Your task to perform on an android device: clear all cookies in the chrome app Image 0: 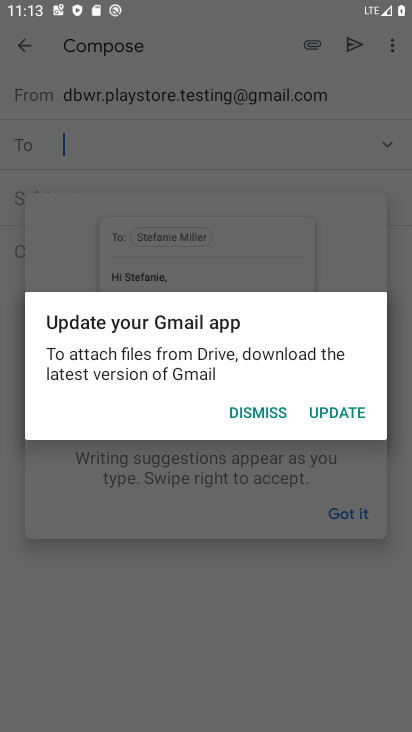
Step 0: press home button
Your task to perform on an android device: clear all cookies in the chrome app Image 1: 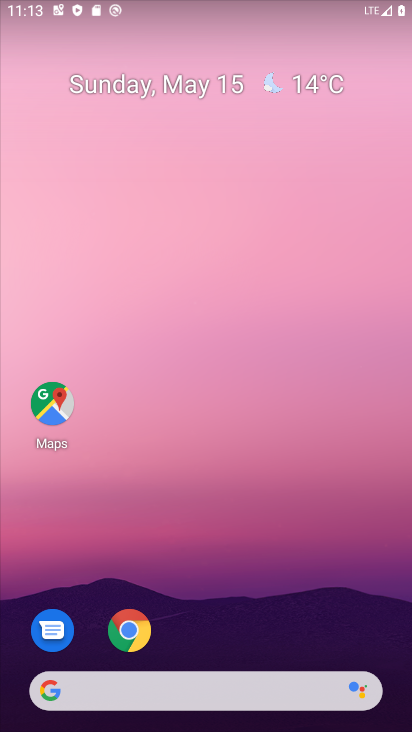
Step 1: click (139, 631)
Your task to perform on an android device: clear all cookies in the chrome app Image 2: 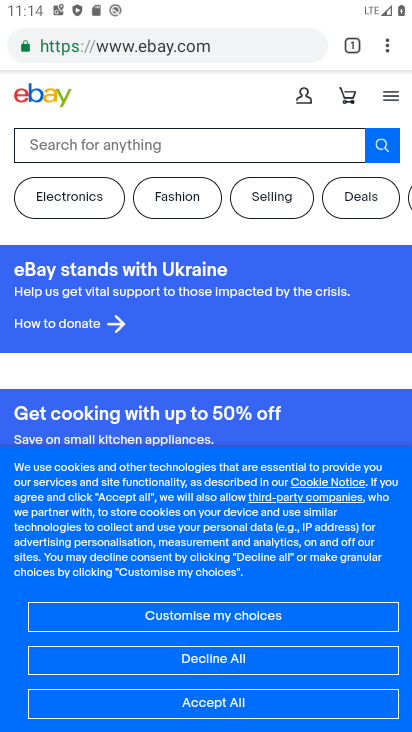
Step 2: click (385, 43)
Your task to perform on an android device: clear all cookies in the chrome app Image 3: 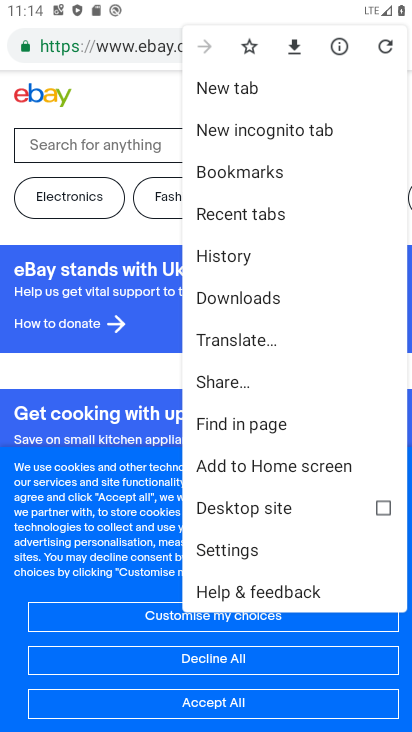
Step 3: click (244, 555)
Your task to perform on an android device: clear all cookies in the chrome app Image 4: 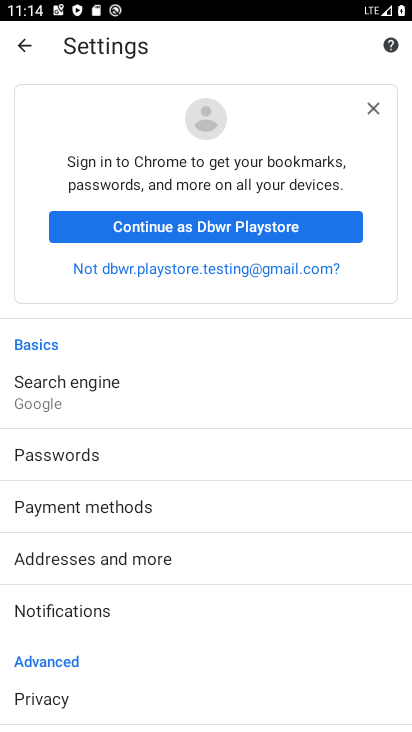
Step 4: drag from (83, 687) to (258, 302)
Your task to perform on an android device: clear all cookies in the chrome app Image 5: 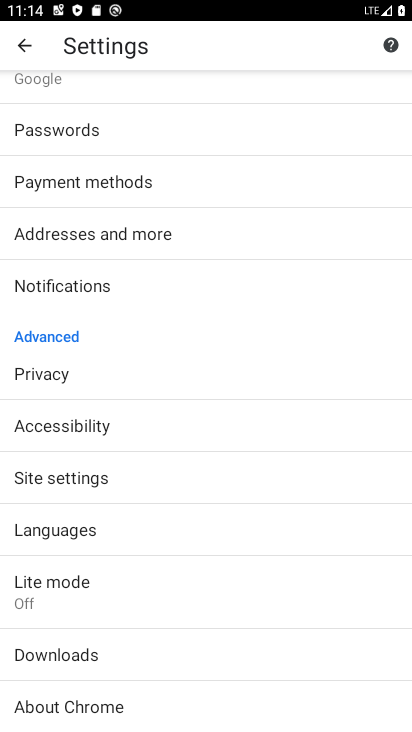
Step 5: click (78, 367)
Your task to perform on an android device: clear all cookies in the chrome app Image 6: 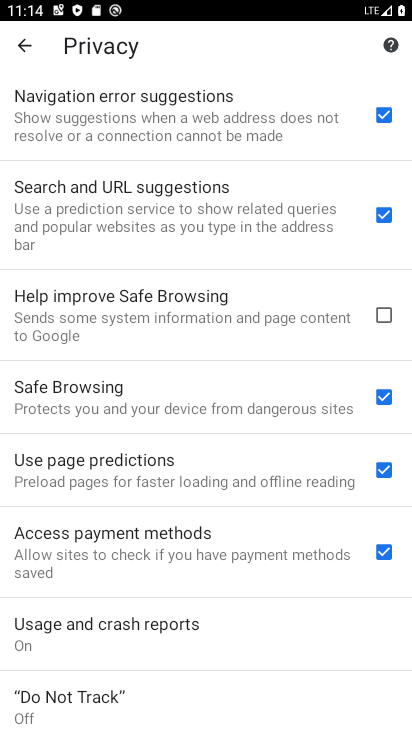
Step 6: drag from (10, 663) to (315, 10)
Your task to perform on an android device: clear all cookies in the chrome app Image 7: 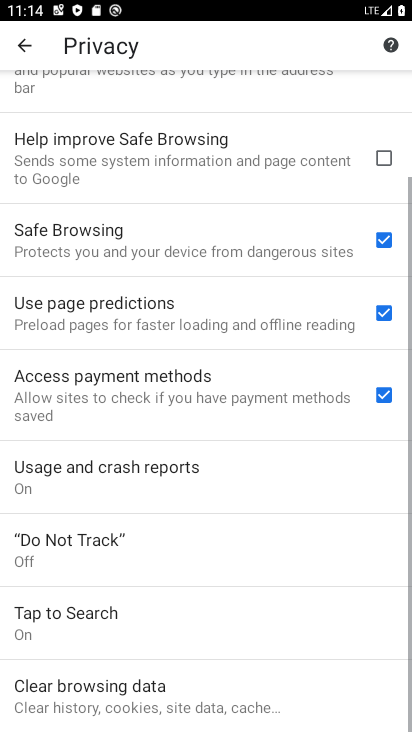
Step 7: click (109, 684)
Your task to perform on an android device: clear all cookies in the chrome app Image 8: 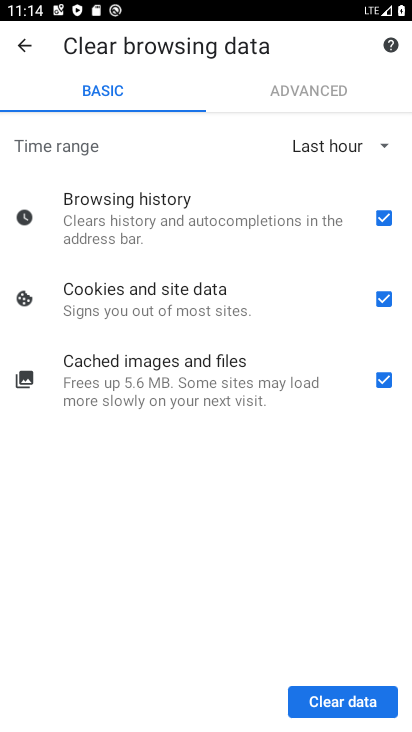
Step 8: click (346, 705)
Your task to perform on an android device: clear all cookies in the chrome app Image 9: 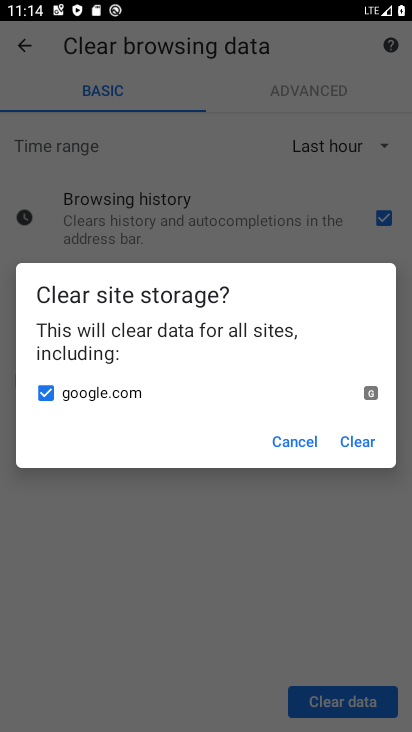
Step 9: click (353, 447)
Your task to perform on an android device: clear all cookies in the chrome app Image 10: 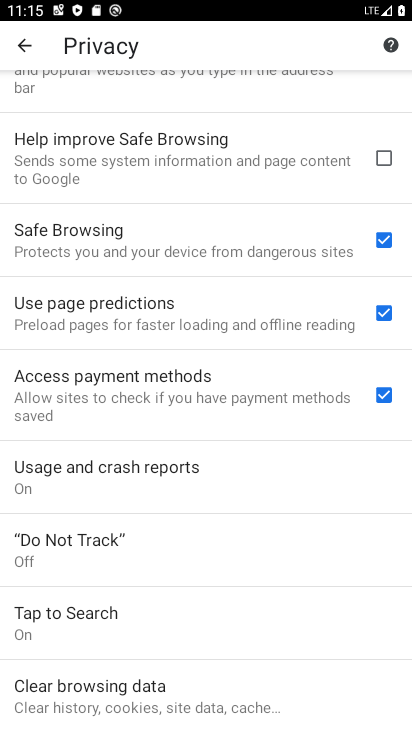
Step 10: click (154, 691)
Your task to perform on an android device: clear all cookies in the chrome app Image 11: 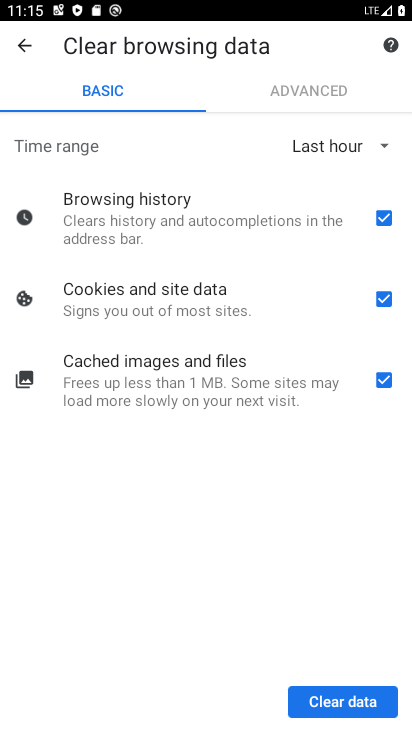
Step 11: click (303, 720)
Your task to perform on an android device: clear all cookies in the chrome app Image 12: 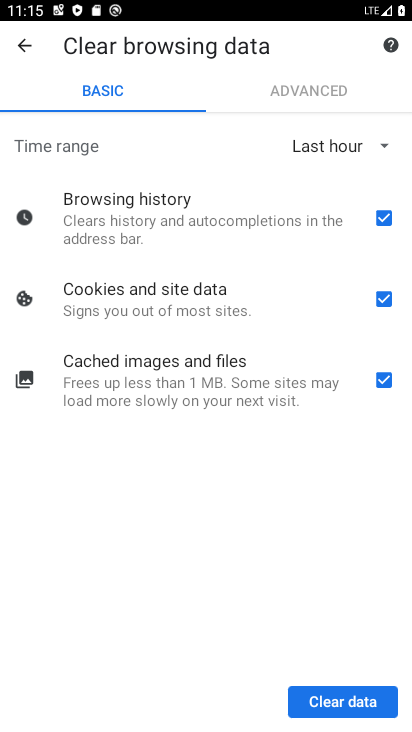
Step 12: click (305, 707)
Your task to perform on an android device: clear all cookies in the chrome app Image 13: 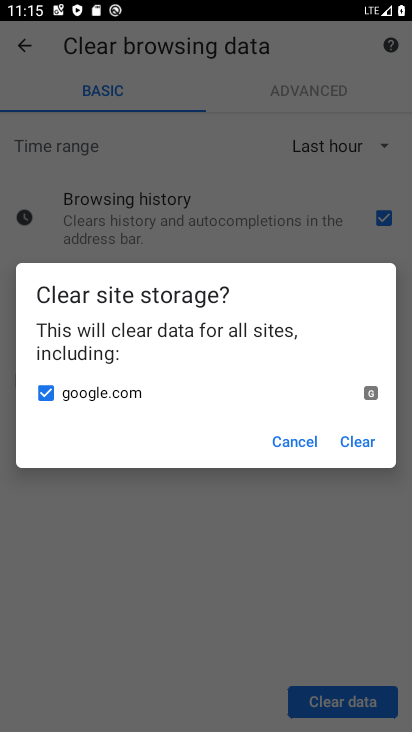
Step 13: click (364, 440)
Your task to perform on an android device: clear all cookies in the chrome app Image 14: 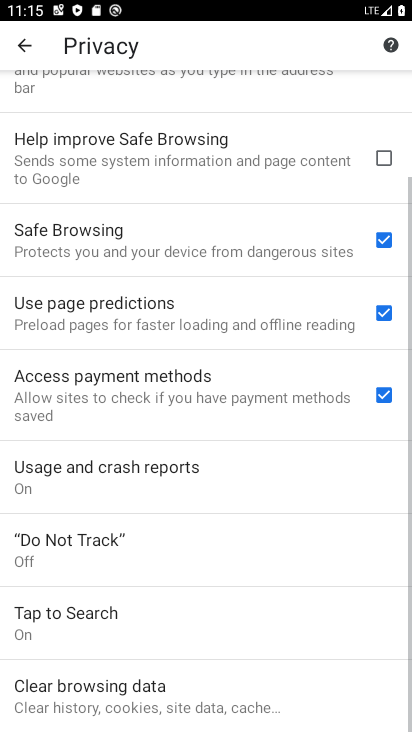
Step 14: task complete